Your task to perform on an android device: Add "razer blackwidow" to the cart on target.com, then select checkout. Image 0: 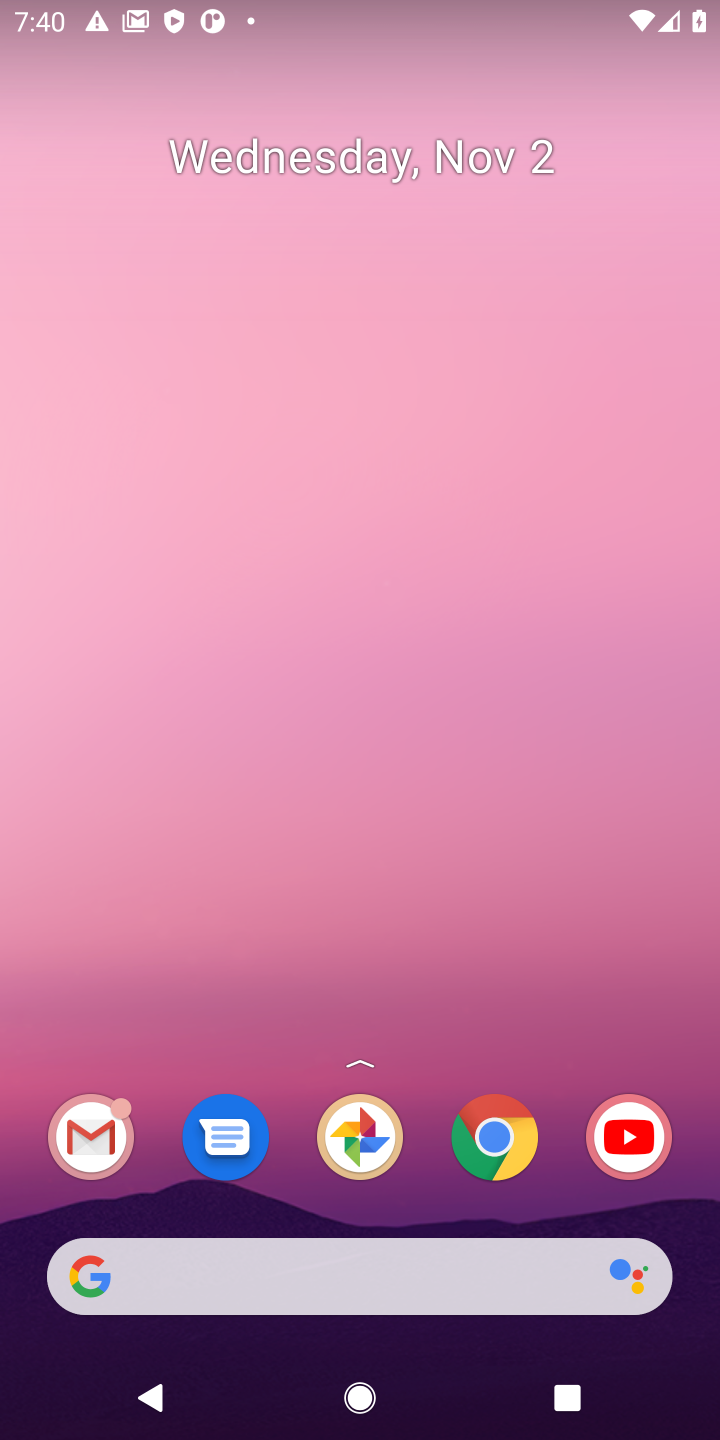
Step 0: click (495, 1139)
Your task to perform on an android device: Add "razer blackwidow" to the cart on target.com, then select checkout. Image 1: 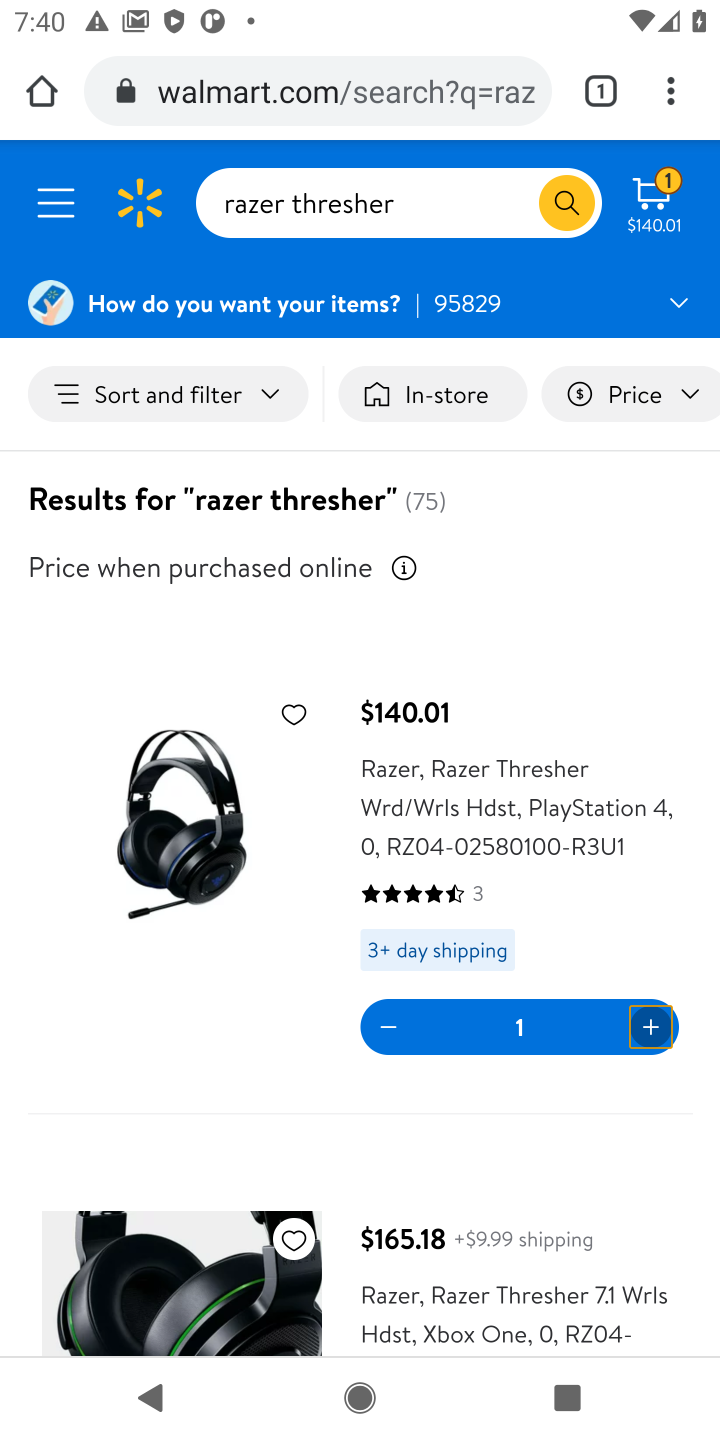
Step 1: click (379, 63)
Your task to perform on an android device: Add "razer blackwidow" to the cart on target.com, then select checkout. Image 2: 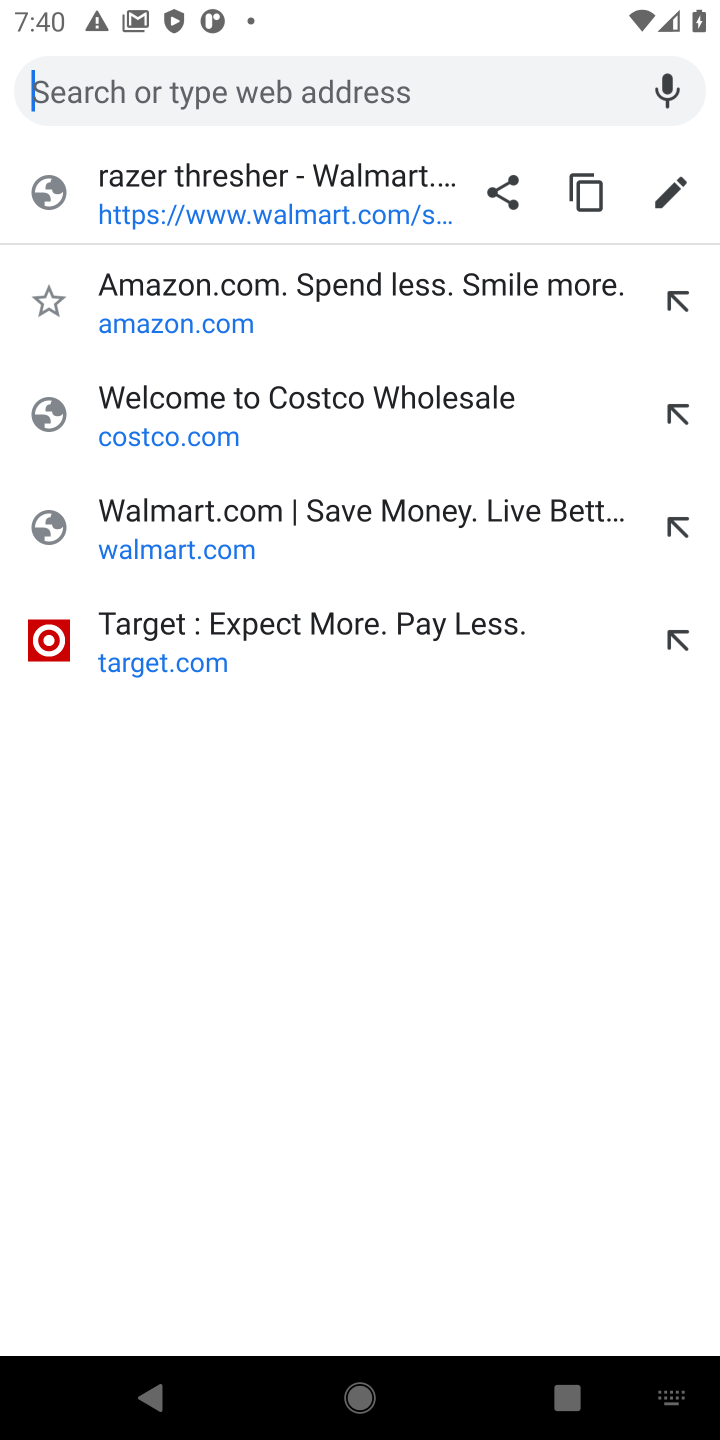
Step 2: click (119, 619)
Your task to perform on an android device: Add "razer blackwidow" to the cart on target.com, then select checkout. Image 3: 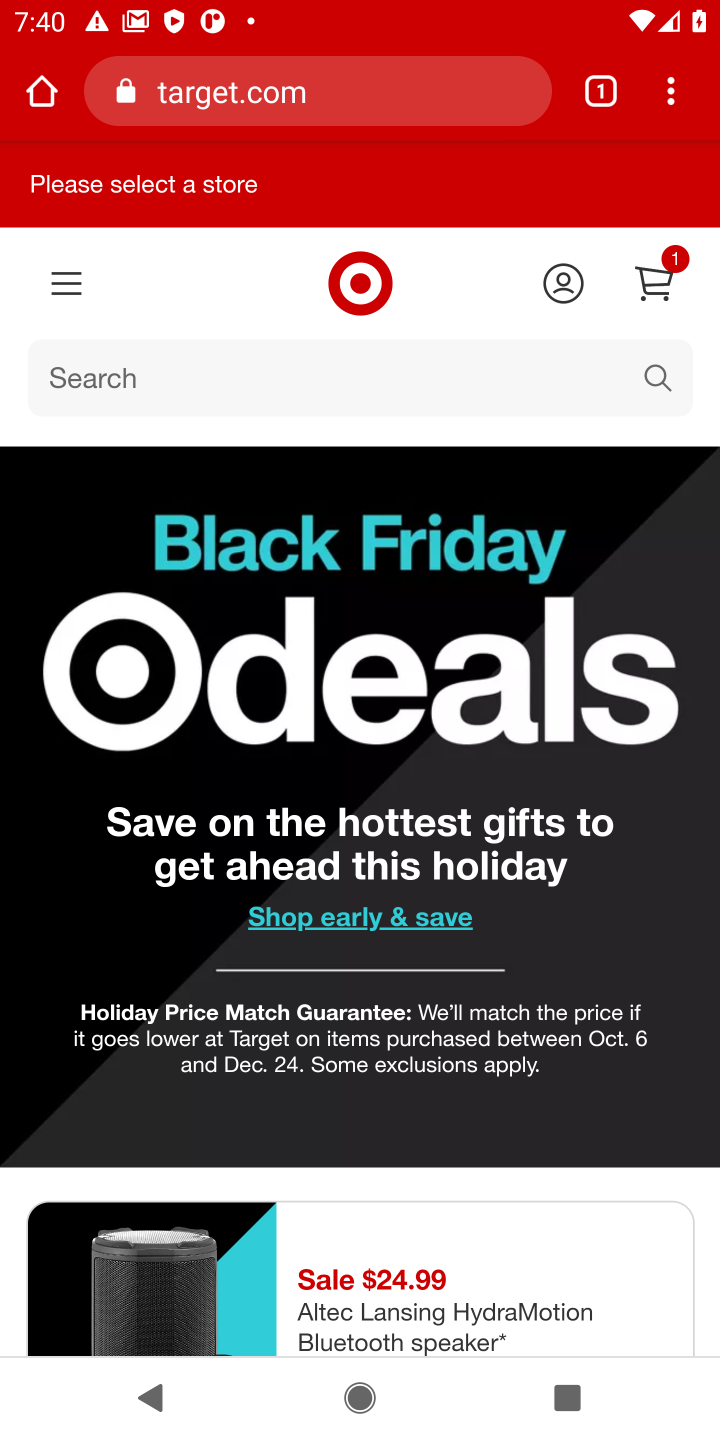
Step 3: click (238, 394)
Your task to perform on an android device: Add "razer blackwidow" to the cart on target.com, then select checkout. Image 4: 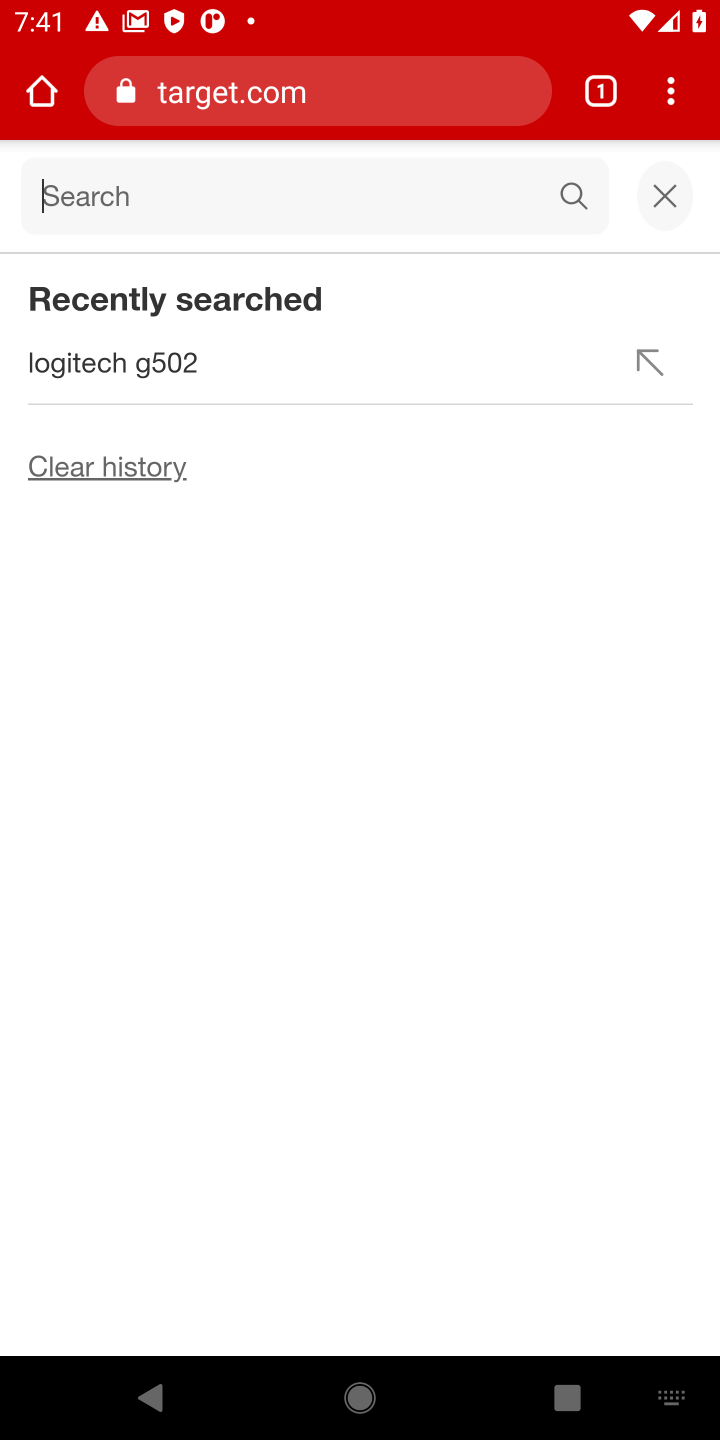
Step 4: type "razer blackwidow"
Your task to perform on an android device: Add "razer blackwidow" to the cart on target.com, then select checkout. Image 5: 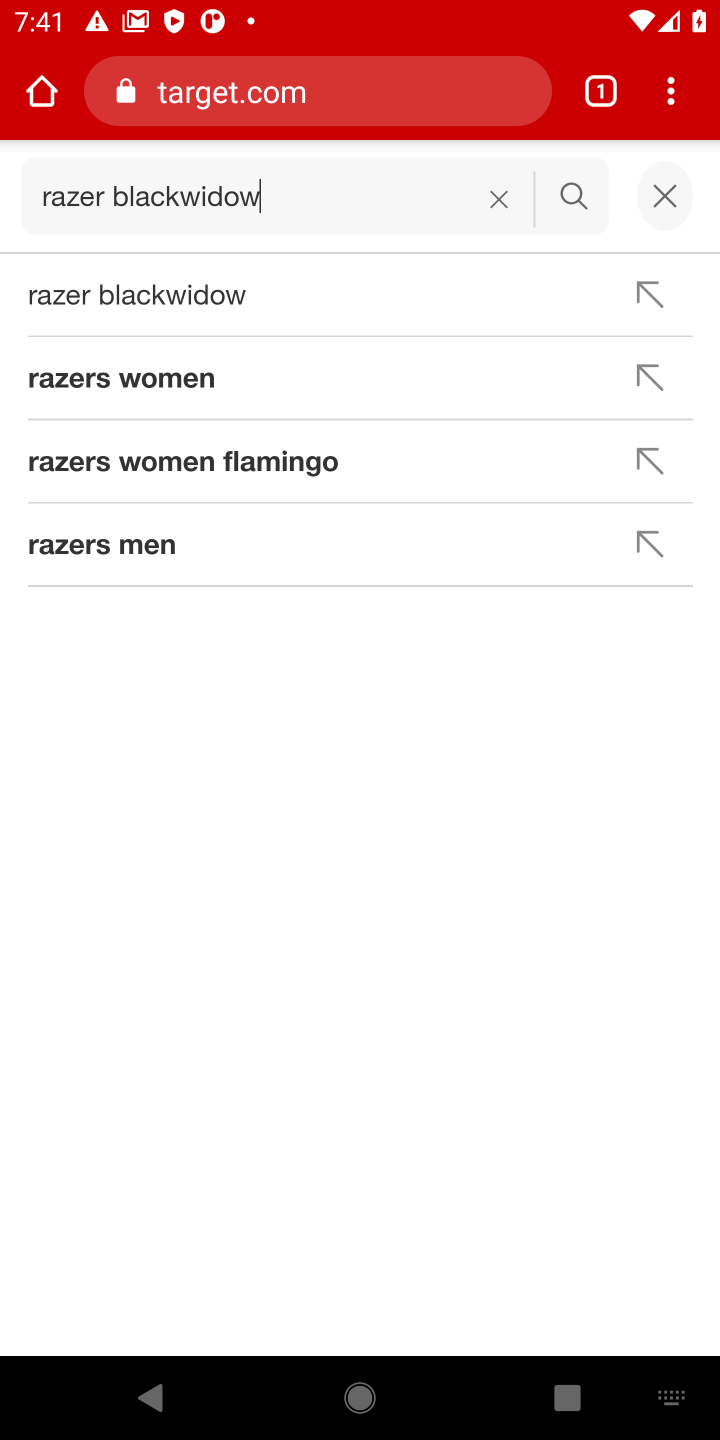
Step 5: click (147, 291)
Your task to perform on an android device: Add "razer blackwidow" to the cart on target.com, then select checkout. Image 6: 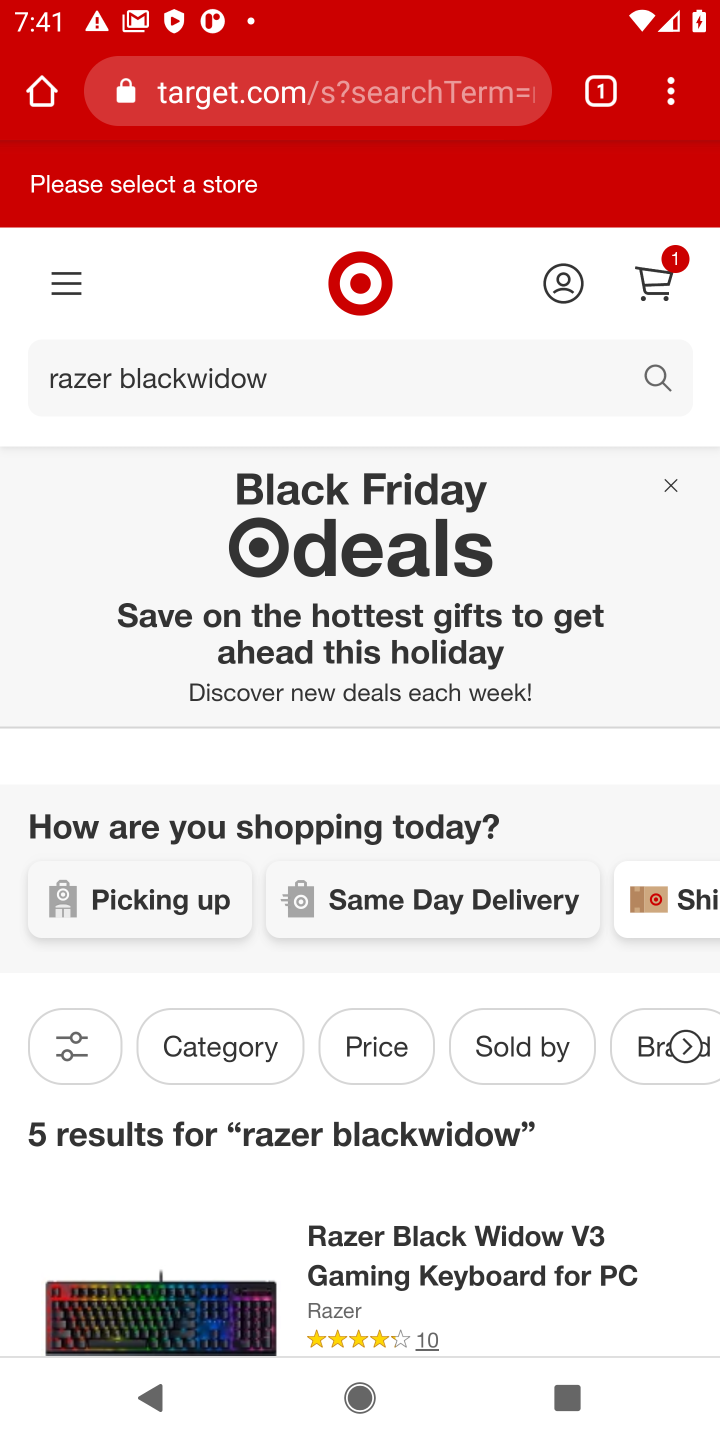
Step 6: drag from (590, 1156) to (578, 513)
Your task to perform on an android device: Add "razer blackwidow" to the cart on target.com, then select checkout. Image 7: 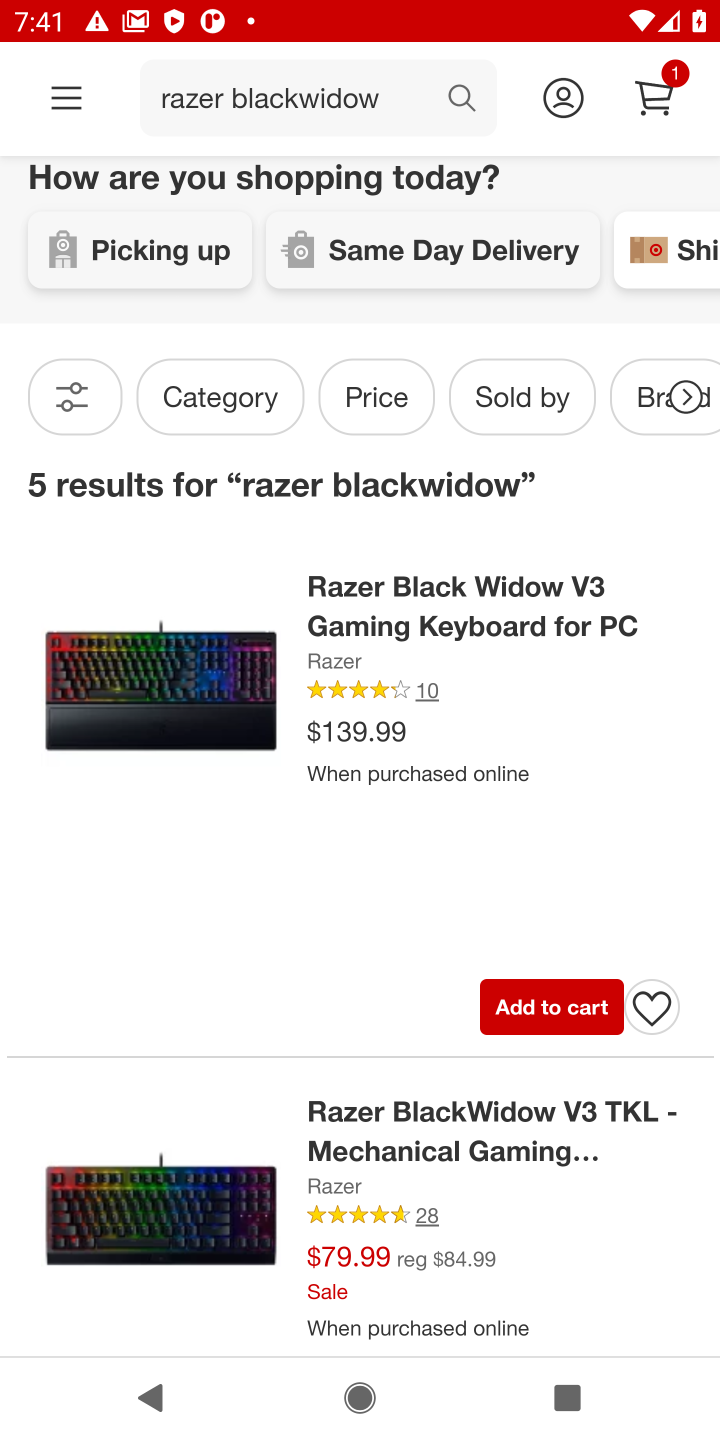
Step 7: click (544, 1003)
Your task to perform on an android device: Add "razer blackwidow" to the cart on target.com, then select checkout. Image 8: 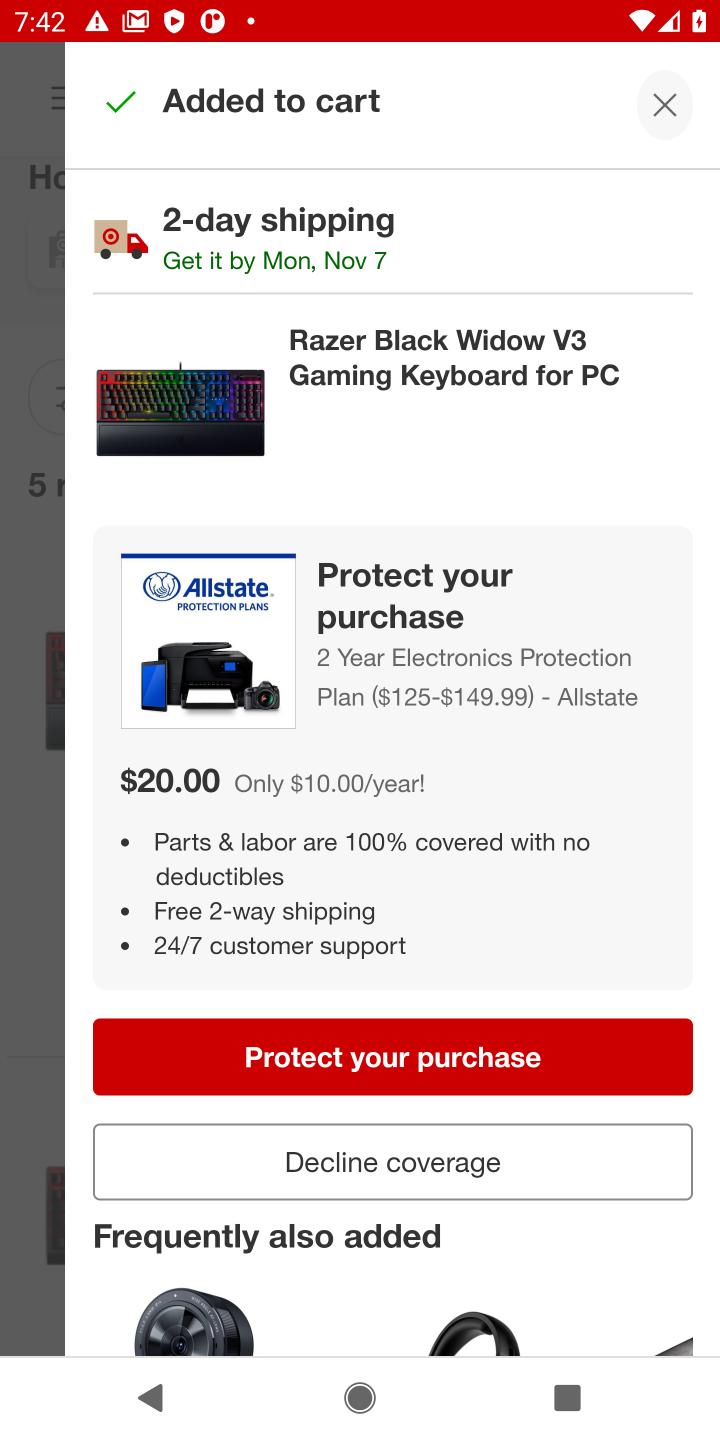
Step 8: click (658, 101)
Your task to perform on an android device: Add "razer blackwidow" to the cart on target.com, then select checkout. Image 9: 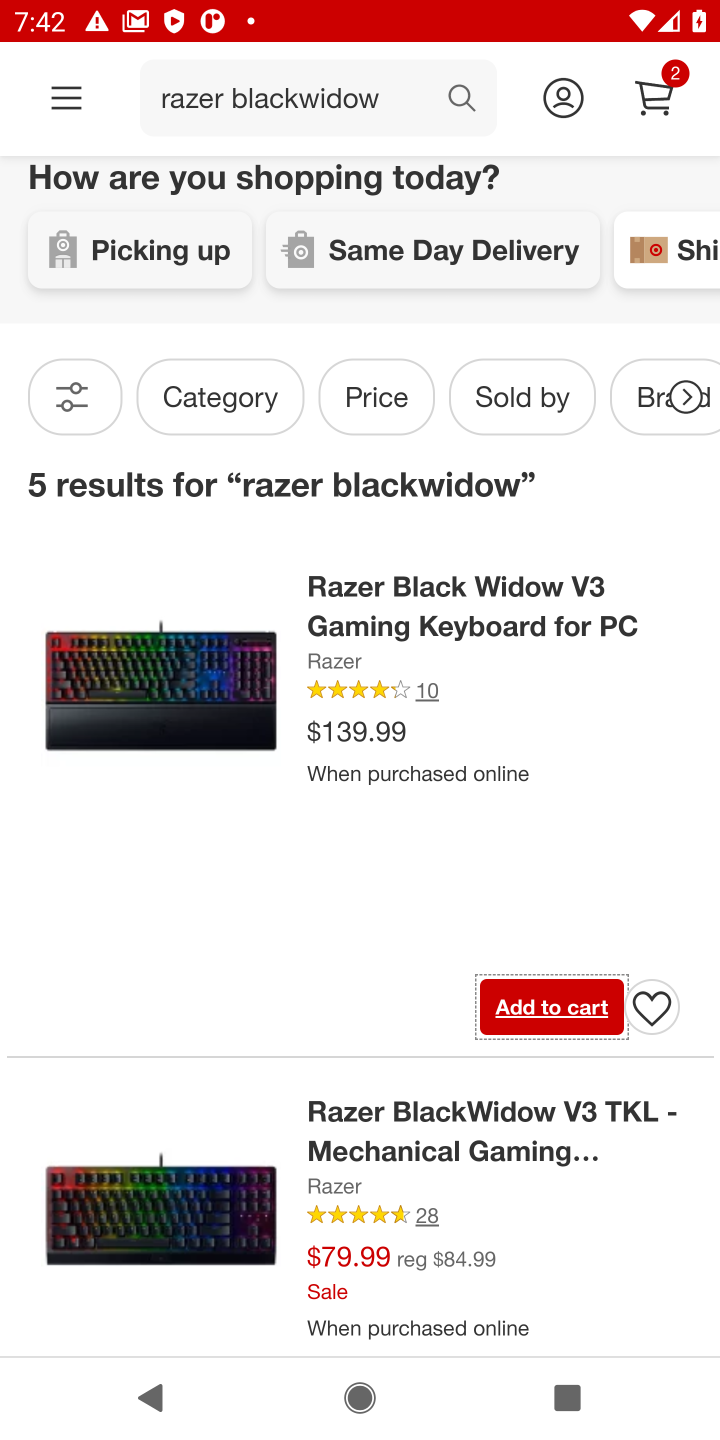
Step 9: click (647, 79)
Your task to perform on an android device: Add "razer blackwidow" to the cart on target.com, then select checkout. Image 10: 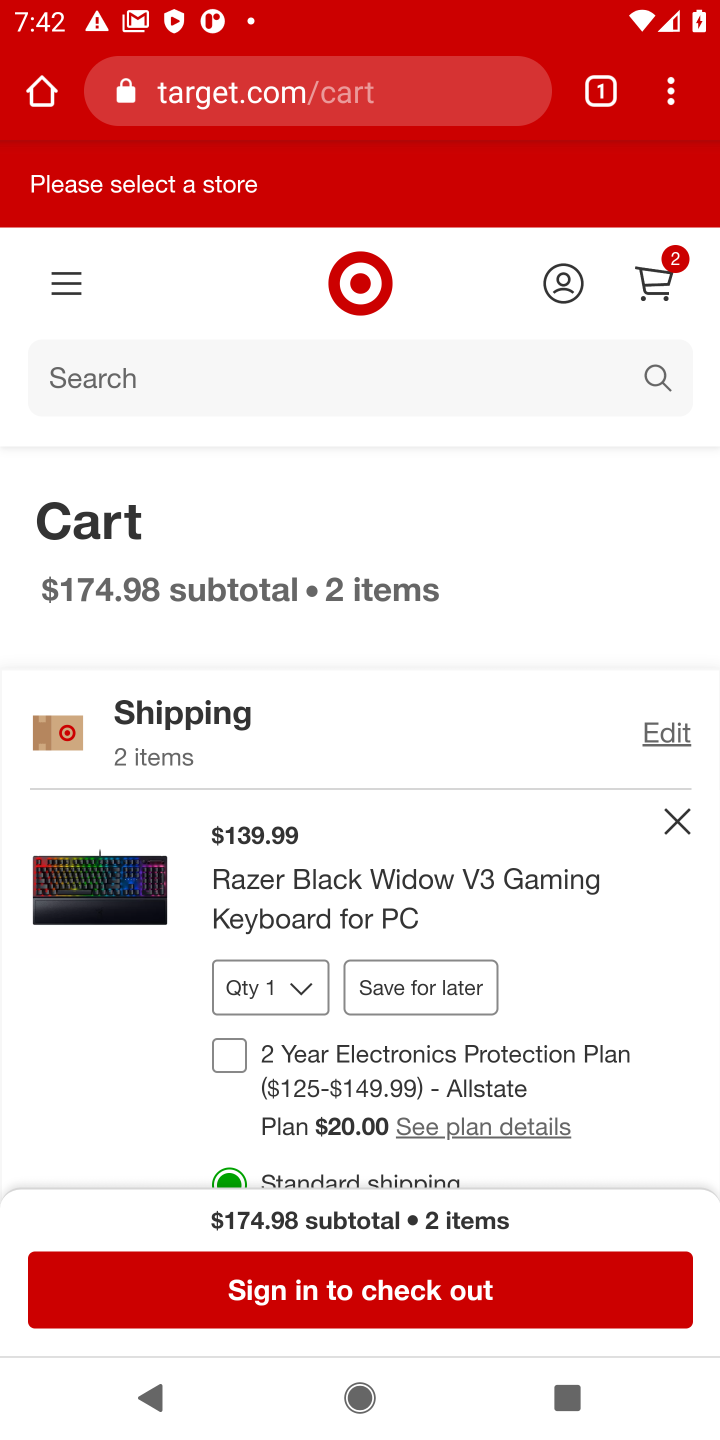
Step 10: click (390, 1286)
Your task to perform on an android device: Add "razer blackwidow" to the cart on target.com, then select checkout. Image 11: 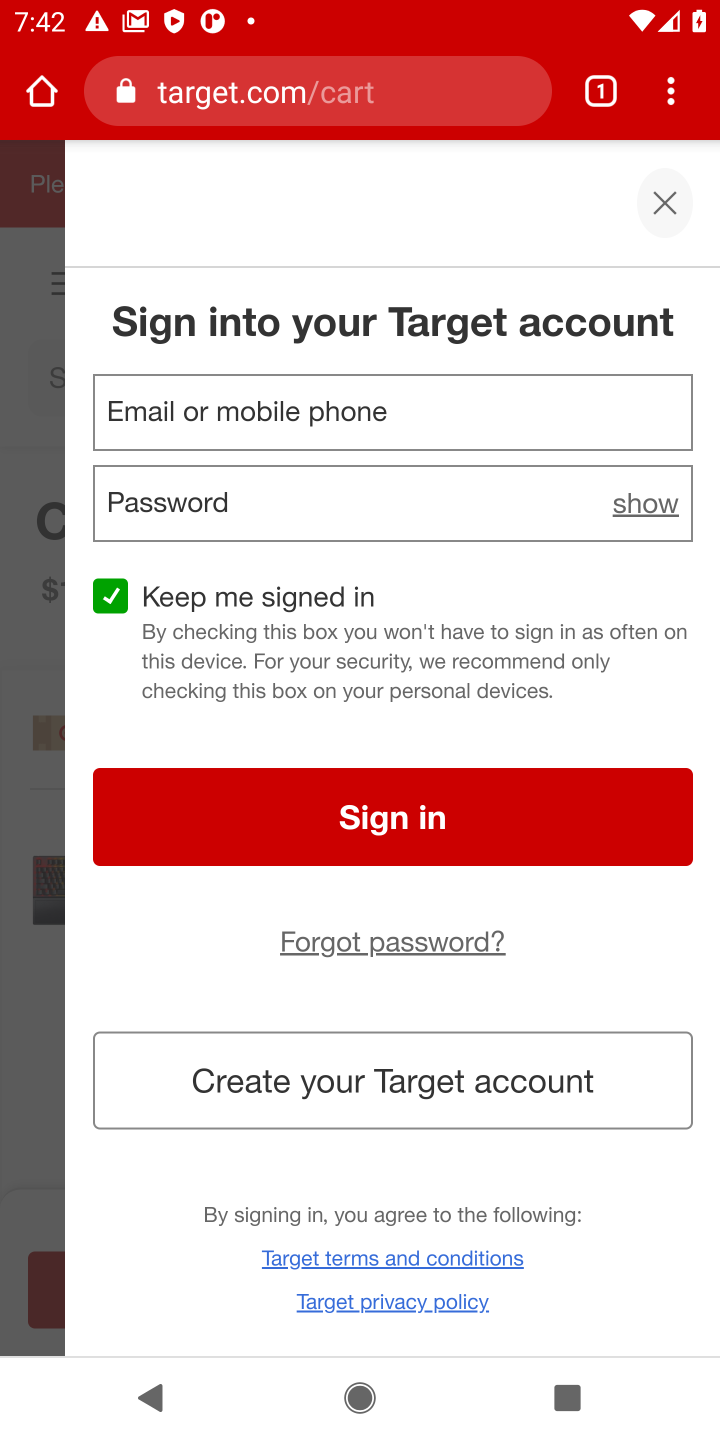
Step 11: task complete